Your task to perform on an android device: change the clock display to digital Image 0: 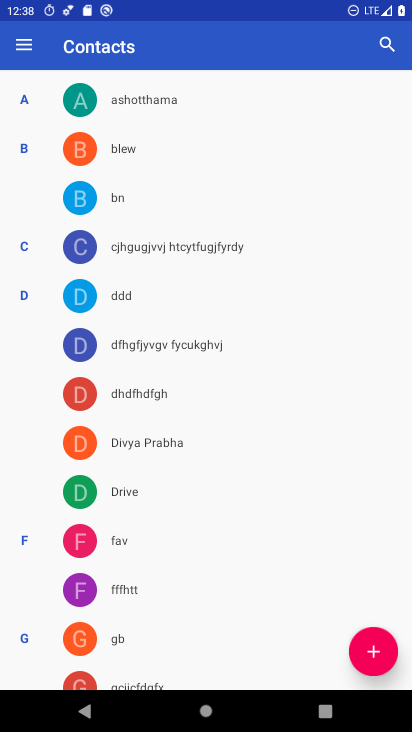
Step 0: press home button
Your task to perform on an android device: change the clock display to digital Image 1: 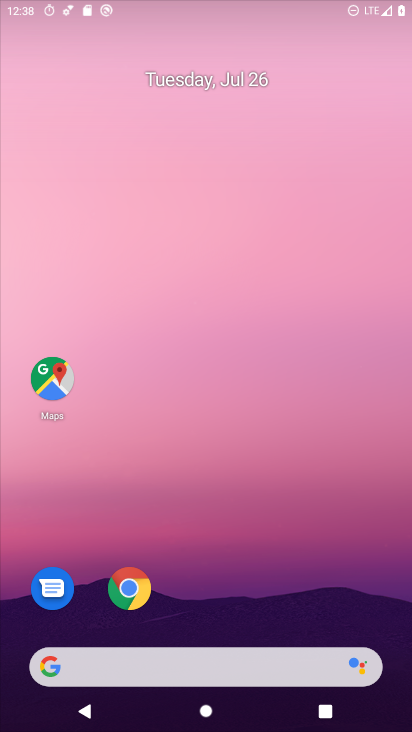
Step 1: drag from (249, 605) to (184, 119)
Your task to perform on an android device: change the clock display to digital Image 2: 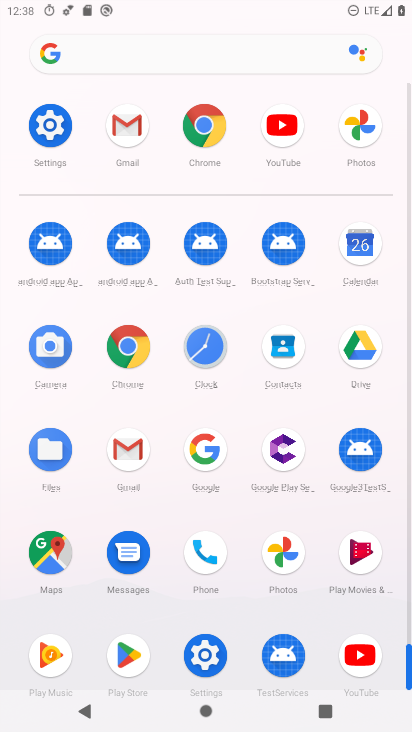
Step 2: click (199, 653)
Your task to perform on an android device: change the clock display to digital Image 3: 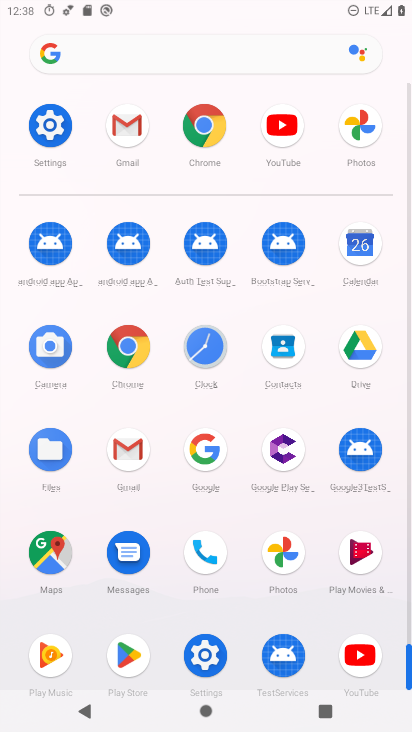
Step 3: click (199, 653)
Your task to perform on an android device: change the clock display to digital Image 4: 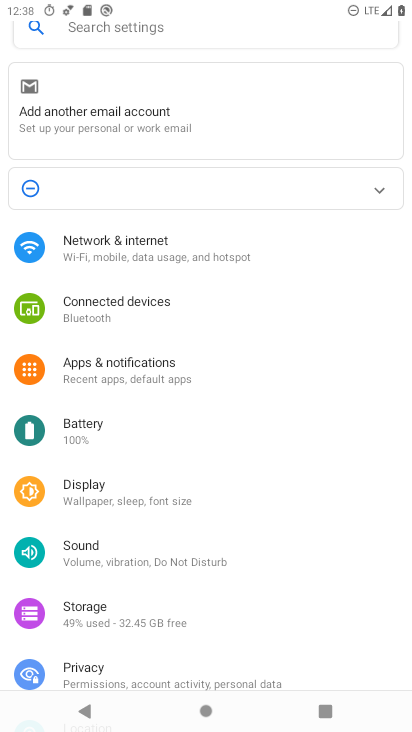
Step 4: press home button
Your task to perform on an android device: change the clock display to digital Image 5: 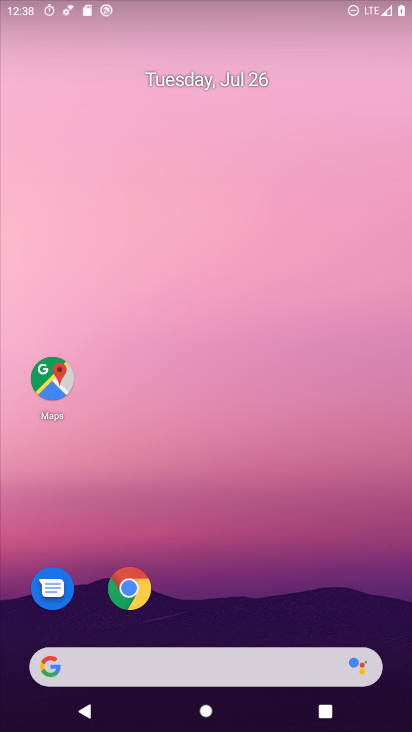
Step 5: drag from (272, 580) to (267, 123)
Your task to perform on an android device: change the clock display to digital Image 6: 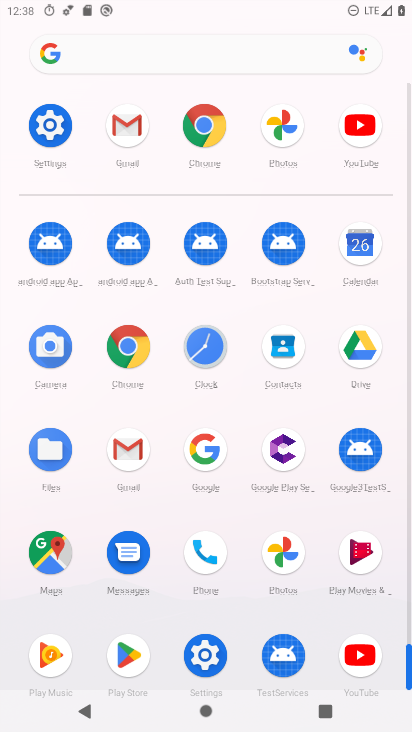
Step 6: click (203, 356)
Your task to perform on an android device: change the clock display to digital Image 7: 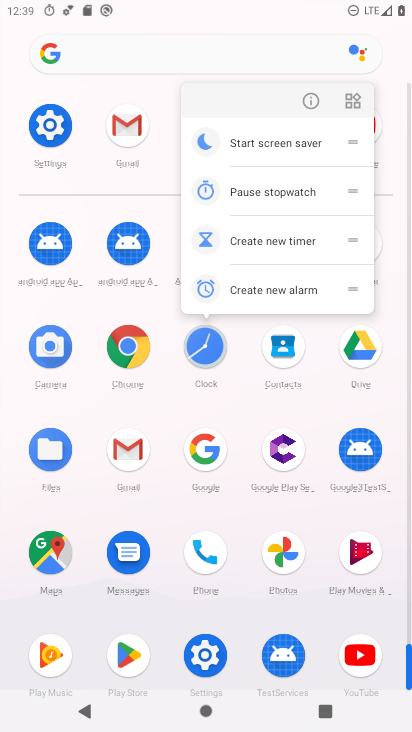
Step 7: click (203, 352)
Your task to perform on an android device: change the clock display to digital Image 8: 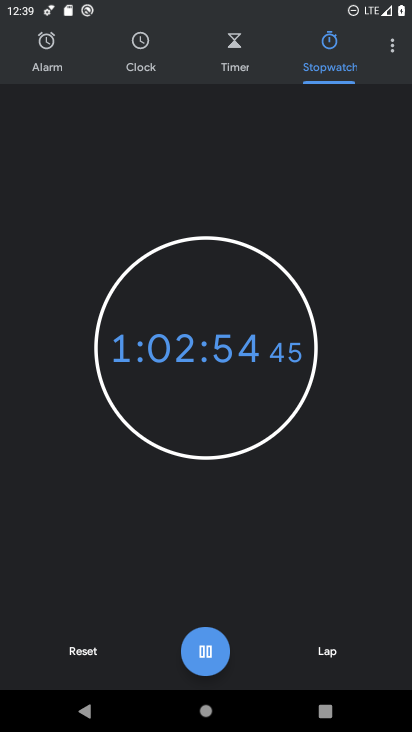
Step 8: click (396, 55)
Your task to perform on an android device: change the clock display to digital Image 9: 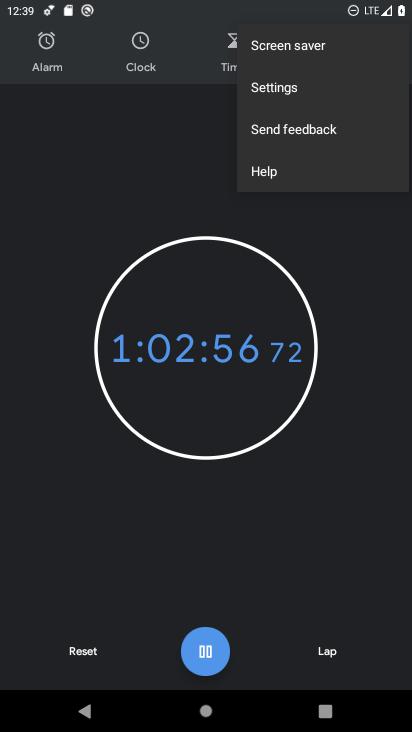
Step 9: click (301, 89)
Your task to perform on an android device: change the clock display to digital Image 10: 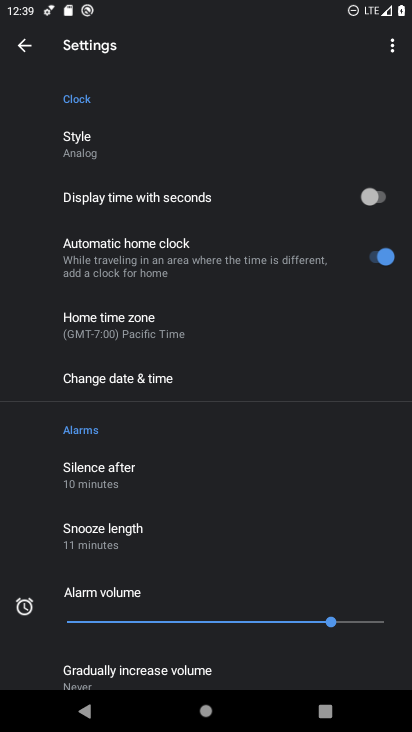
Step 10: click (157, 166)
Your task to perform on an android device: change the clock display to digital Image 11: 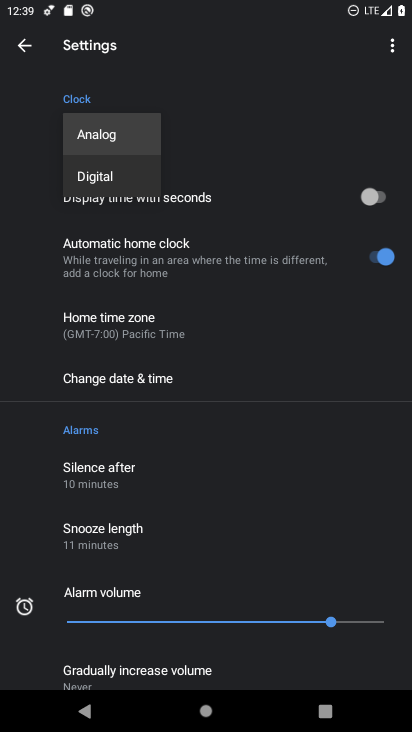
Step 11: click (140, 168)
Your task to perform on an android device: change the clock display to digital Image 12: 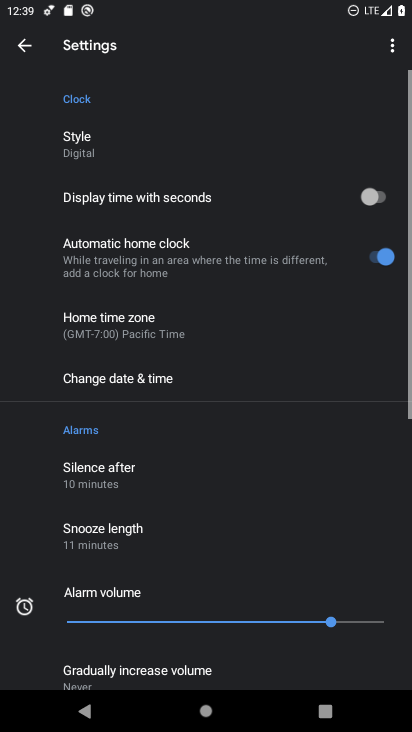
Step 12: task complete